Your task to perform on an android device: Open Wikipedia Image 0: 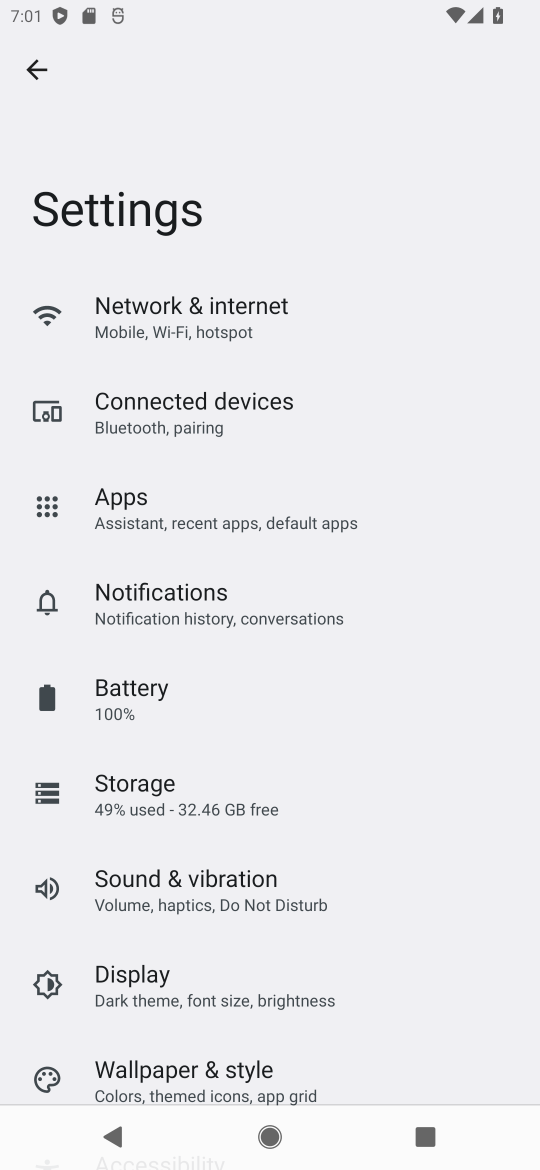
Step 0: press home button
Your task to perform on an android device: Open Wikipedia Image 1: 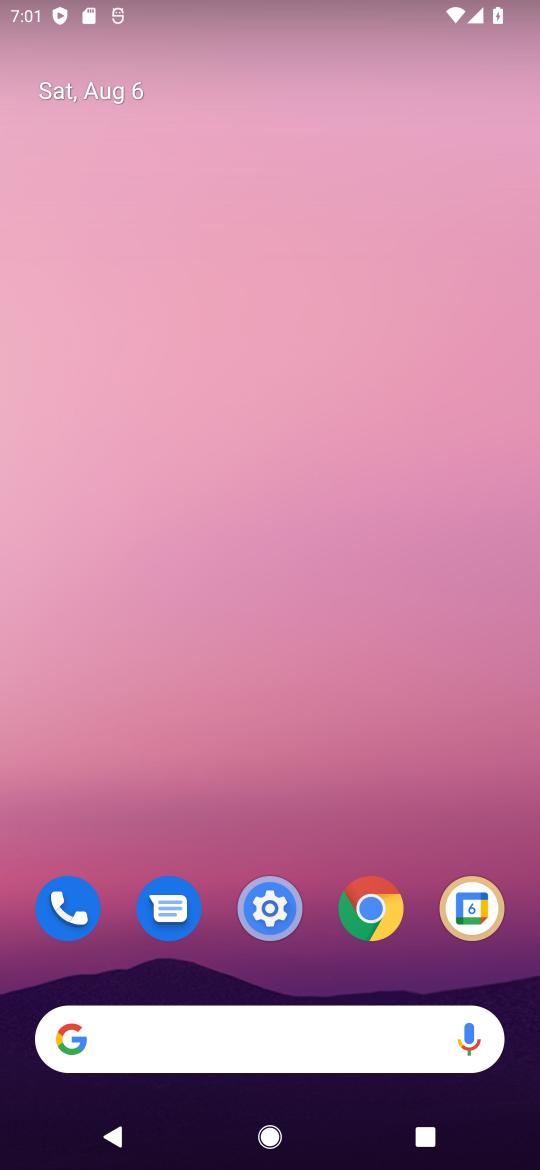
Step 1: click (389, 902)
Your task to perform on an android device: Open Wikipedia Image 2: 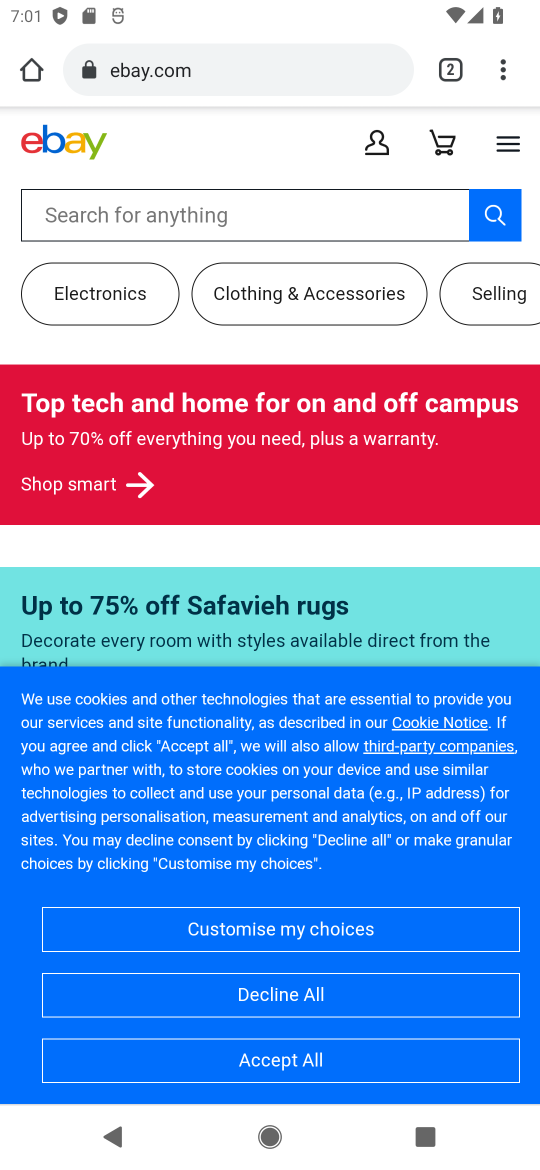
Step 2: click (449, 66)
Your task to perform on an android device: Open Wikipedia Image 3: 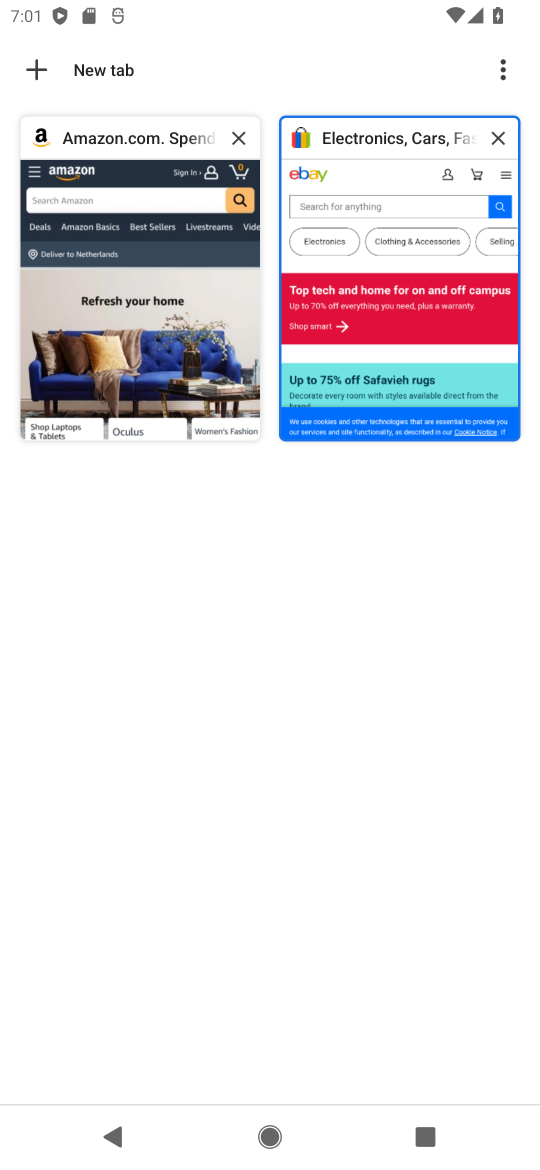
Step 3: click (504, 131)
Your task to perform on an android device: Open Wikipedia Image 4: 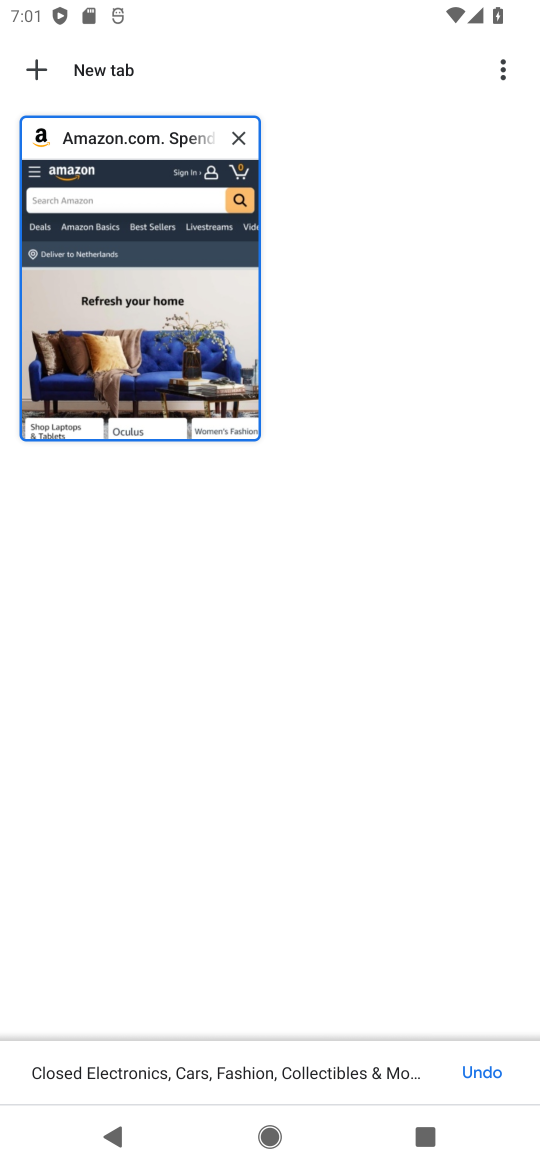
Step 4: click (248, 135)
Your task to perform on an android device: Open Wikipedia Image 5: 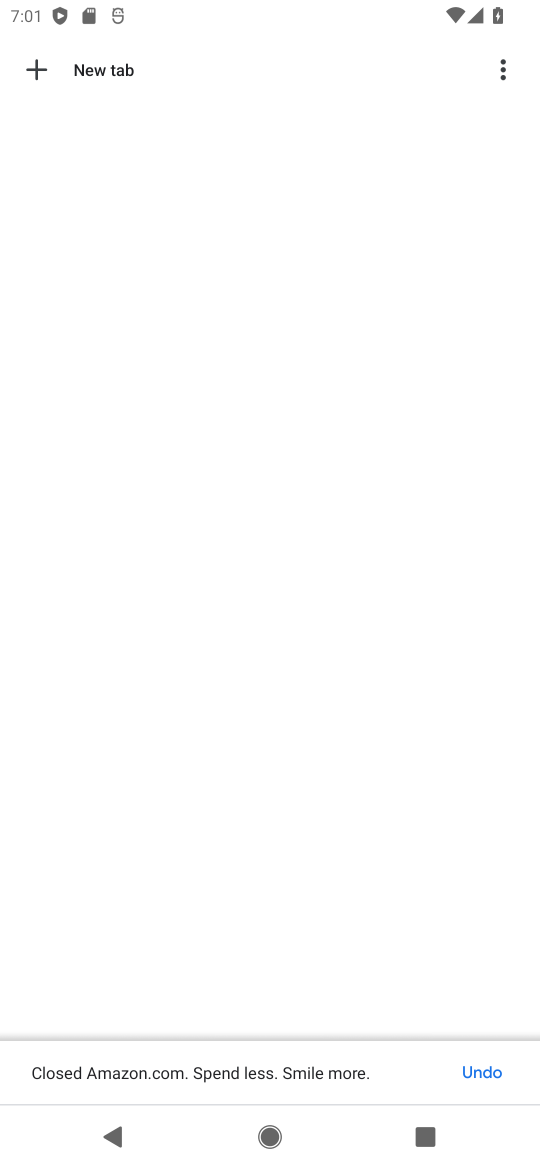
Step 5: click (76, 67)
Your task to perform on an android device: Open Wikipedia Image 6: 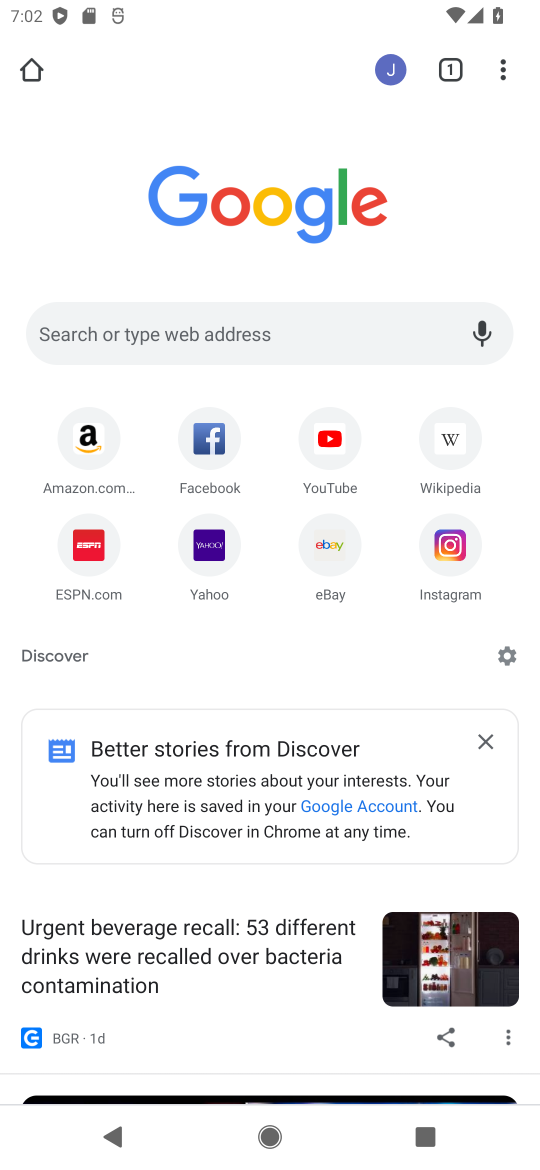
Step 6: click (457, 457)
Your task to perform on an android device: Open Wikipedia Image 7: 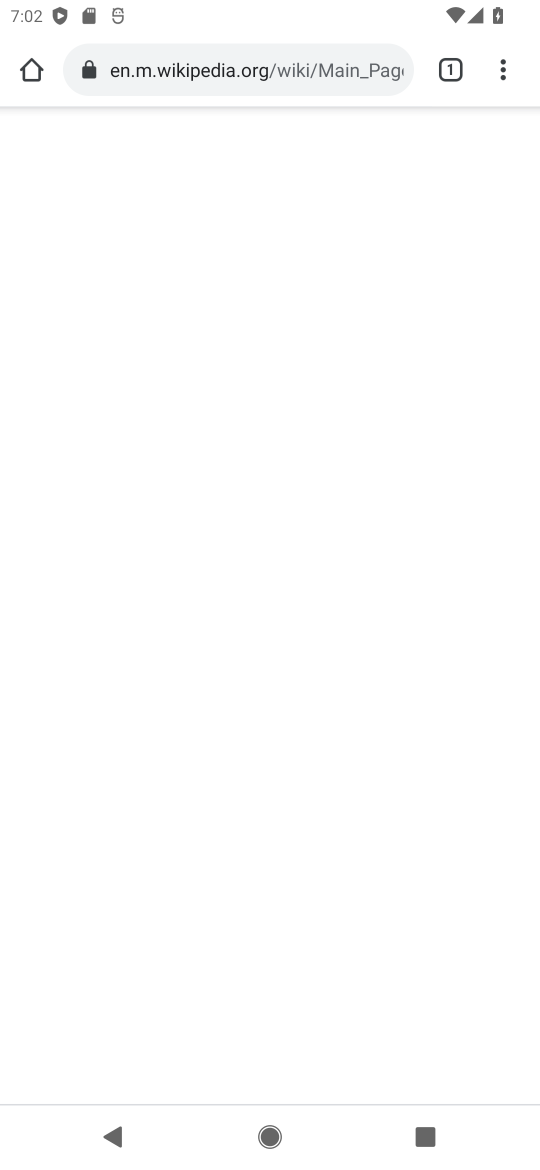
Step 7: task complete